Your task to perform on an android device: check battery use Image 0: 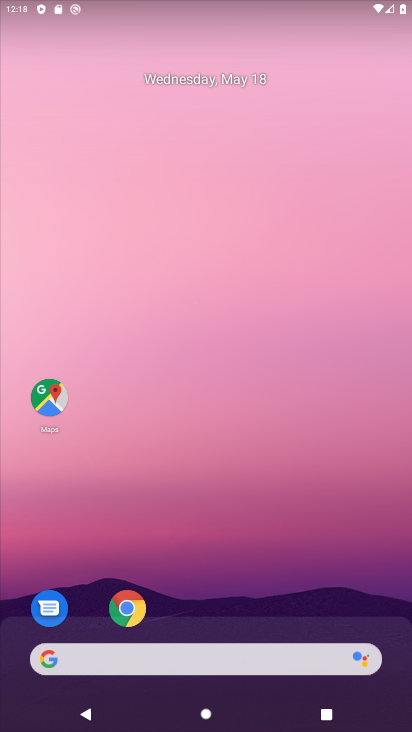
Step 0: drag from (192, 659) to (261, 153)
Your task to perform on an android device: check battery use Image 1: 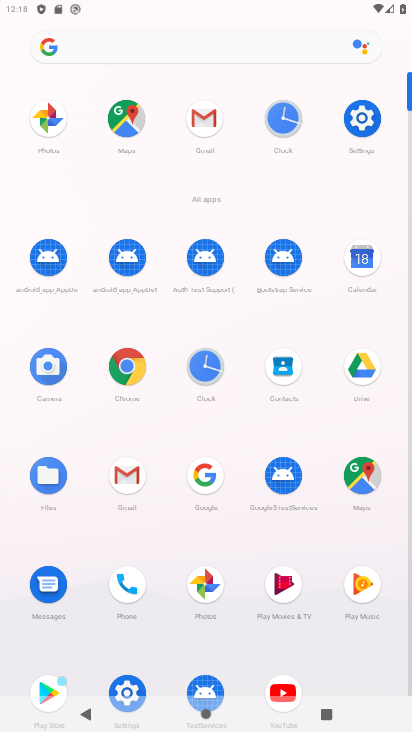
Step 1: drag from (116, 637) to (229, 286)
Your task to perform on an android device: check battery use Image 2: 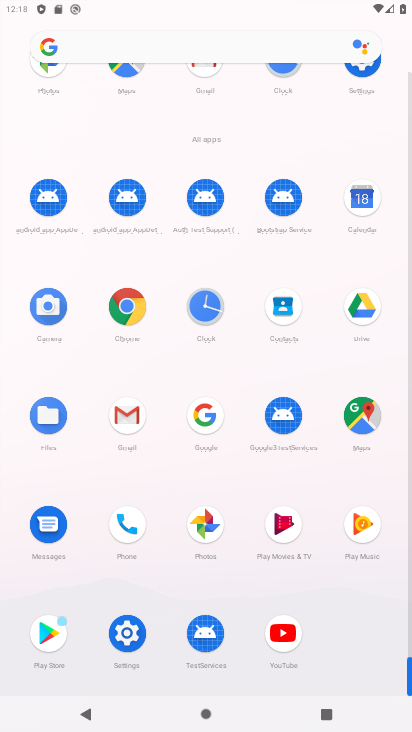
Step 2: click (114, 640)
Your task to perform on an android device: check battery use Image 3: 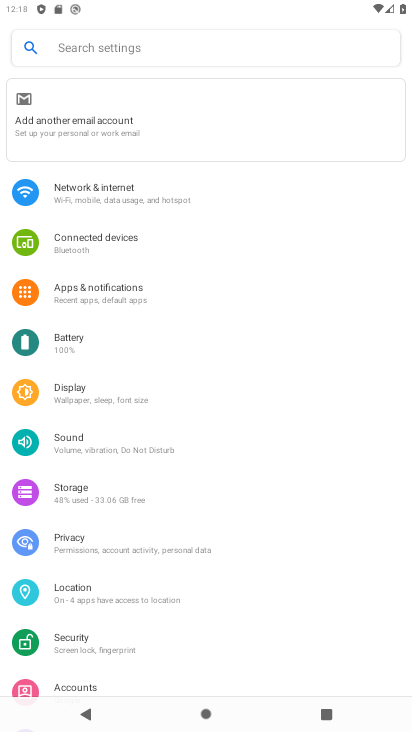
Step 3: click (116, 344)
Your task to perform on an android device: check battery use Image 4: 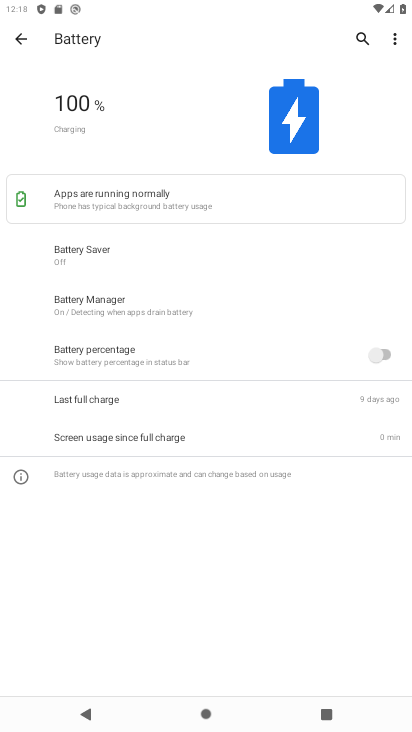
Step 4: click (393, 46)
Your task to perform on an android device: check battery use Image 5: 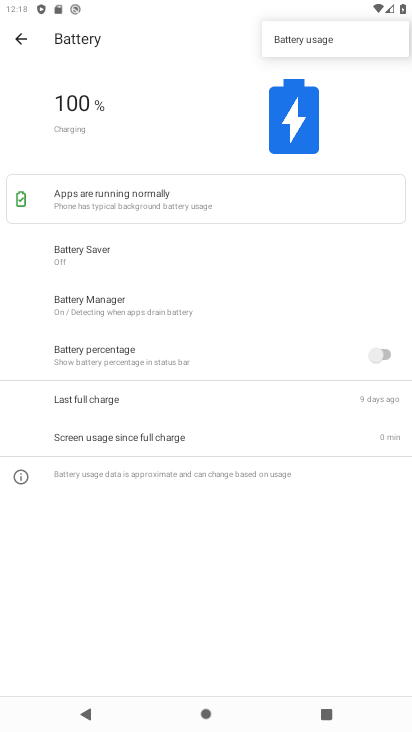
Step 5: click (361, 42)
Your task to perform on an android device: check battery use Image 6: 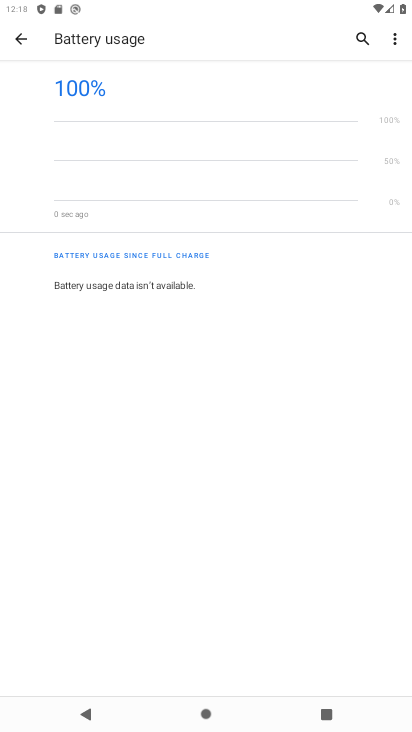
Step 6: task complete